Your task to perform on an android device: read, delete, or share a saved page in the chrome app Image 0: 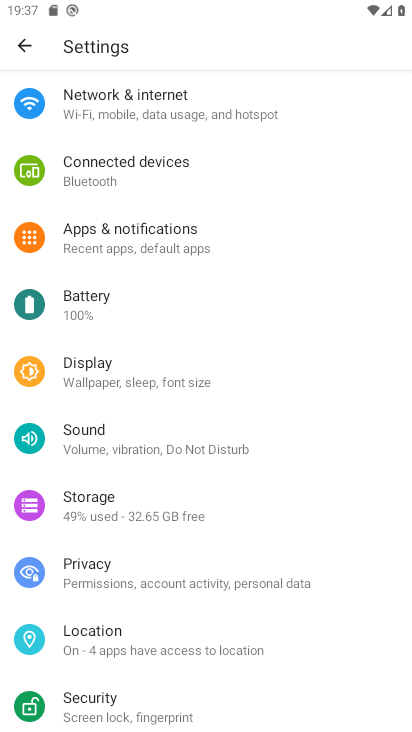
Step 0: press home button
Your task to perform on an android device: read, delete, or share a saved page in the chrome app Image 1: 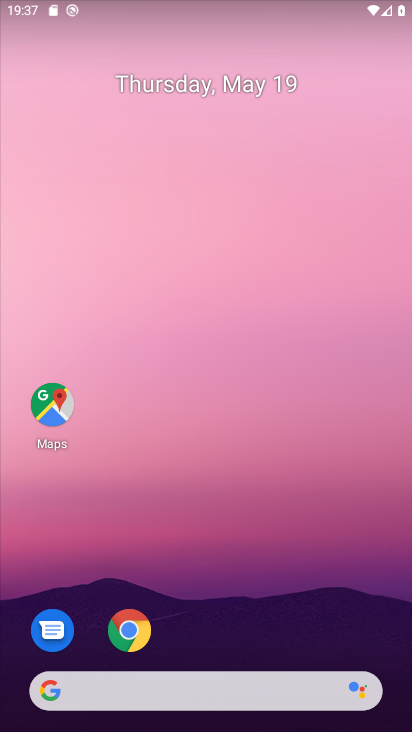
Step 1: click (133, 636)
Your task to perform on an android device: read, delete, or share a saved page in the chrome app Image 2: 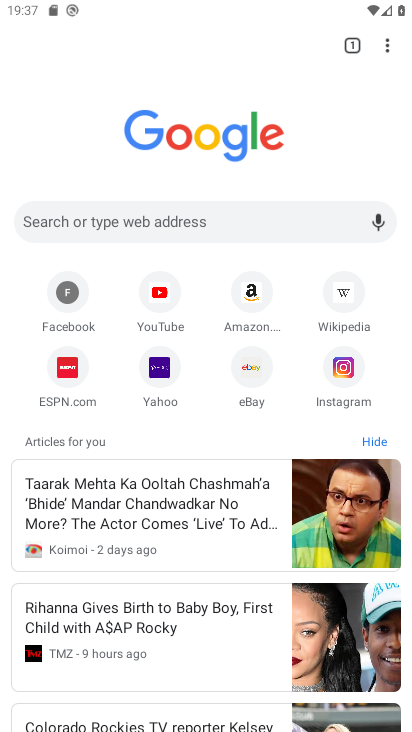
Step 2: click (71, 292)
Your task to perform on an android device: read, delete, or share a saved page in the chrome app Image 3: 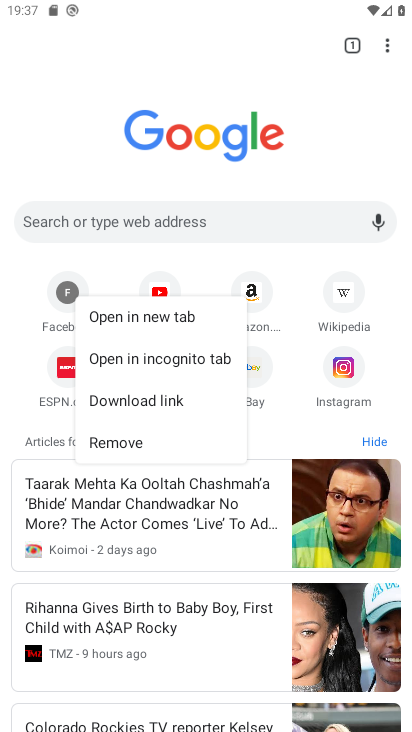
Step 3: click (147, 445)
Your task to perform on an android device: read, delete, or share a saved page in the chrome app Image 4: 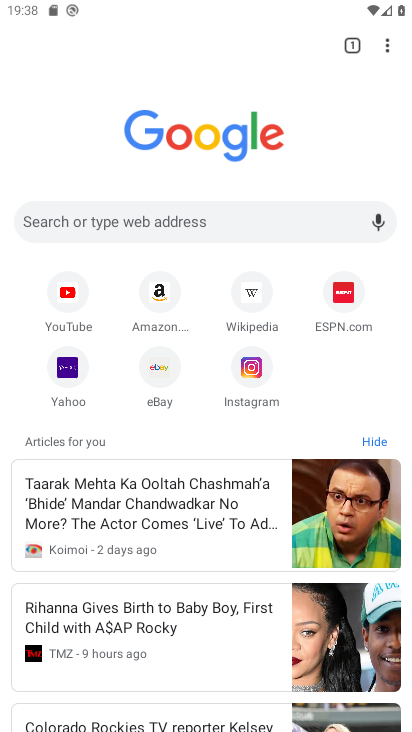
Step 4: task complete